Your task to perform on an android device: create a new album in the google photos Image 0: 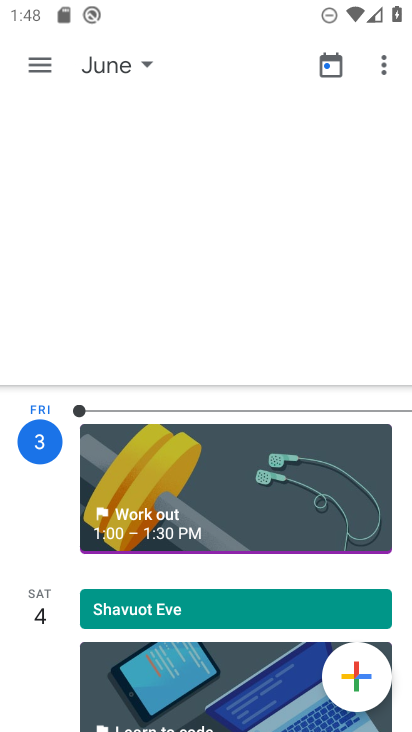
Step 0: press home button
Your task to perform on an android device: create a new album in the google photos Image 1: 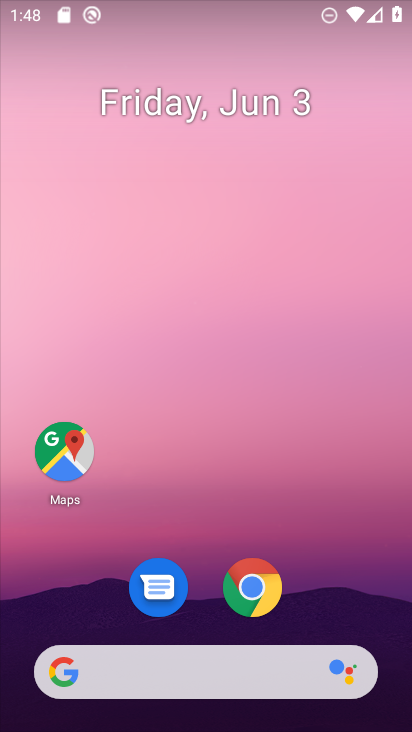
Step 1: drag from (329, 615) to (267, 26)
Your task to perform on an android device: create a new album in the google photos Image 2: 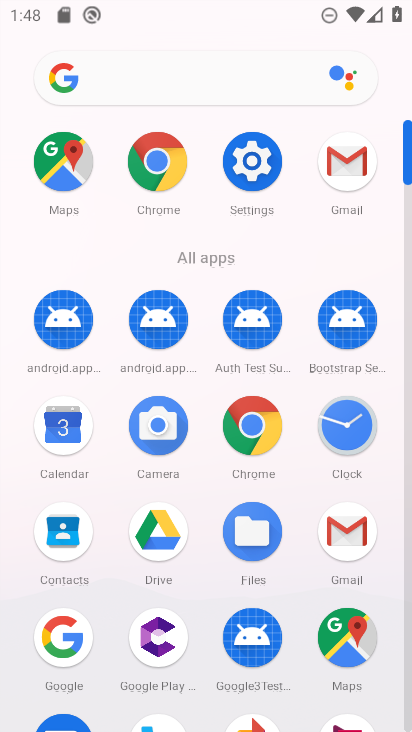
Step 2: drag from (199, 602) to (197, 178)
Your task to perform on an android device: create a new album in the google photos Image 3: 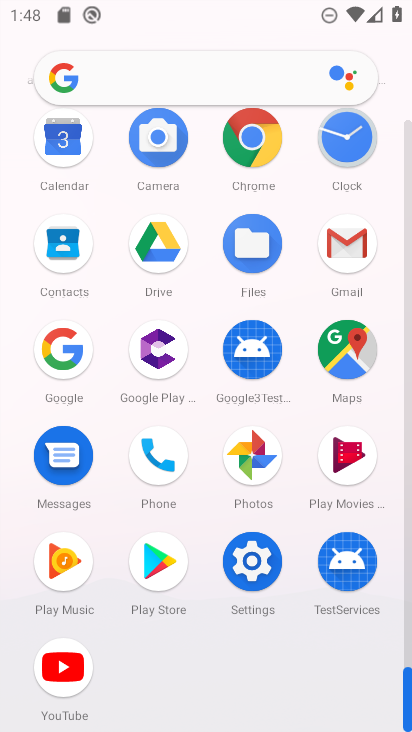
Step 3: click (258, 464)
Your task to perform on an android device: create a new album in the google photos Image 4: 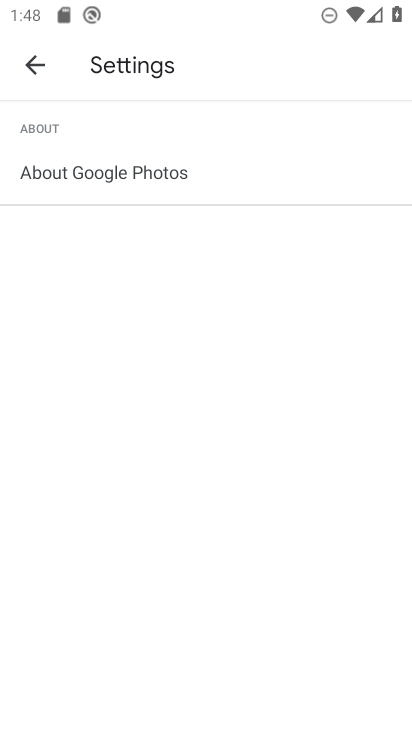
Step 4: click (36, 60)
Your task to perform on an android device: create a new album in the google photos Image 5: 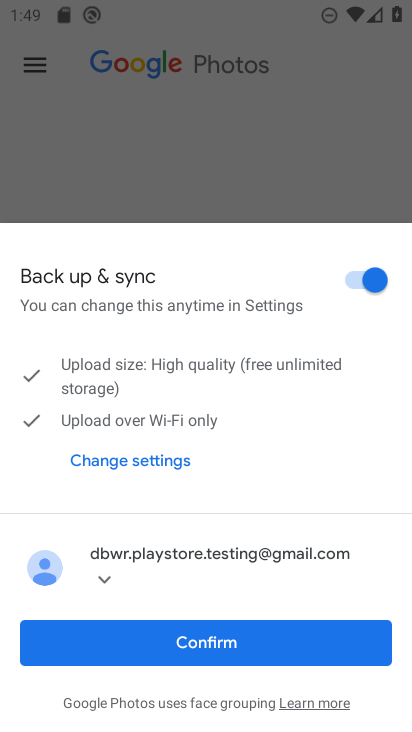
Step 5: click (239, 655)
Your task to perform on an android device: create a new album in the google photos Image 6: 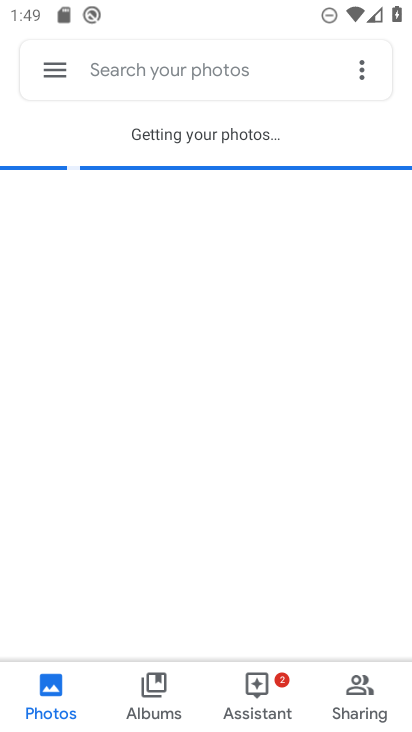
Step 6: click (151, 688)
Your task to perform on an android device: create a new album in the google photos Image 7: 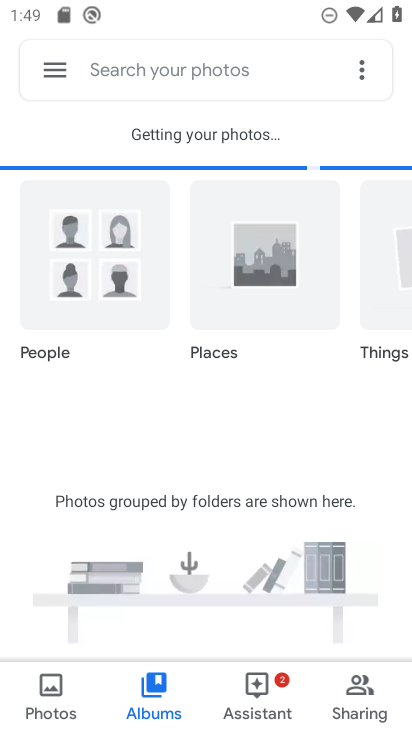
Step 7: click (360, 65)
Your task to perform on an android device: create a new album in the google photos Image 8: 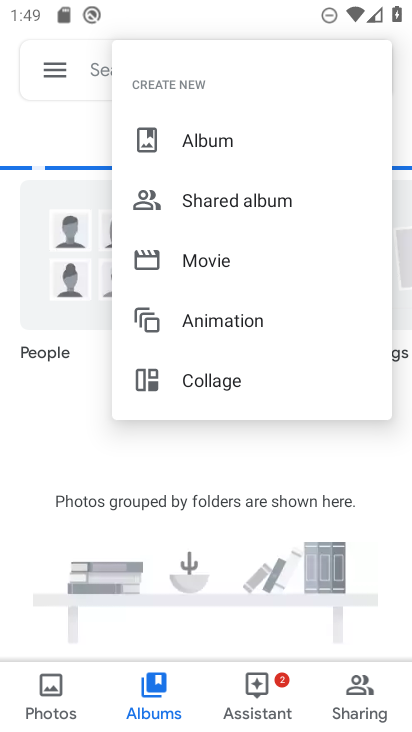
Step 8: click (221, 148)
Your task to perform on an android device: create a new album in the google photos Image 9: 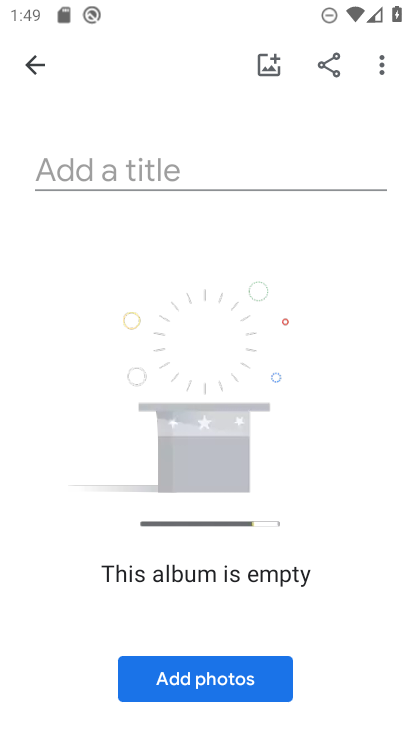
Step 9: click (73, 173)
Your task to perform on an android device: create a new album in the google photos Image 10: 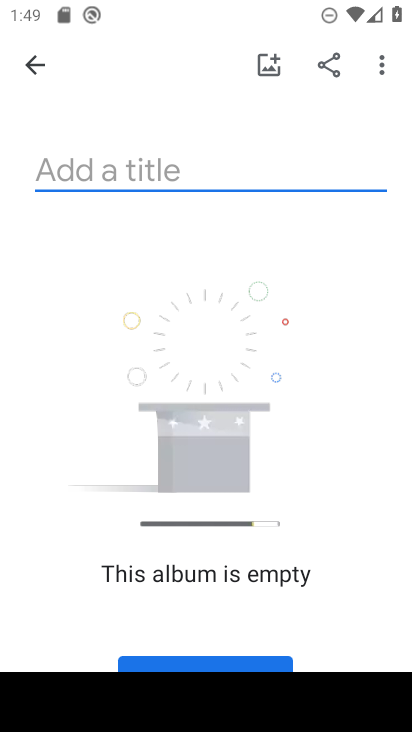
Step 10: type "qwertyuip"
Your task to perform on an android device: create a new album in the google photos Image 11: 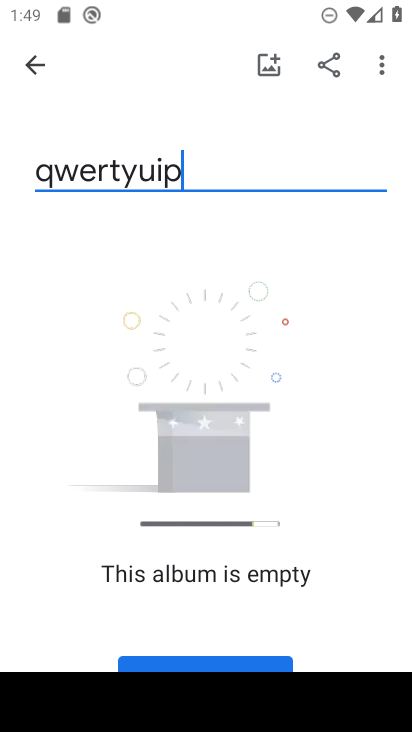
Step 11: click (280, 60)
Your task to perform on an android device: create a new album in the google photos Image 12: 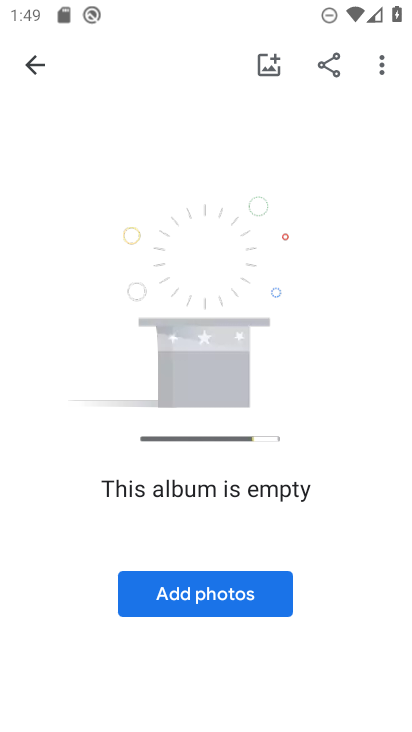
Step 12: click (182, 601)
Your task to perform on an android device: create a new album in the google photos Image 13: 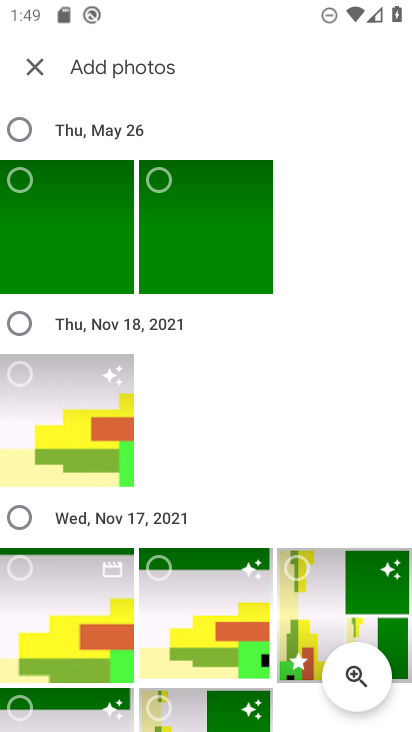
Step 13: click (22, 245)
Your task to perform on an android device: create a new album in the google photos Image 14: 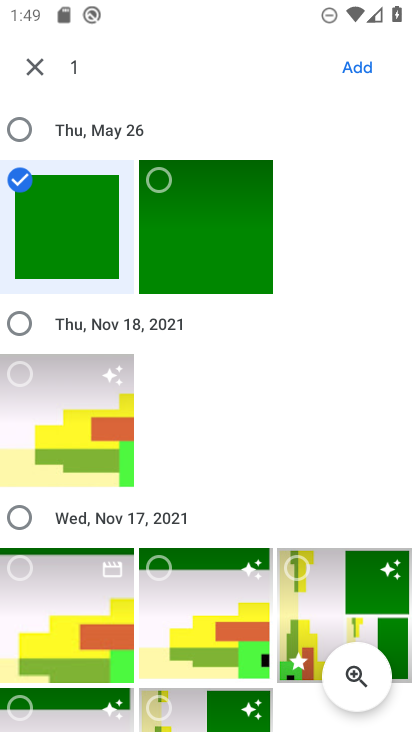
Step 14: click (353, 72)
Your task to perform on an android device: create a new album in the google photos Image 15: 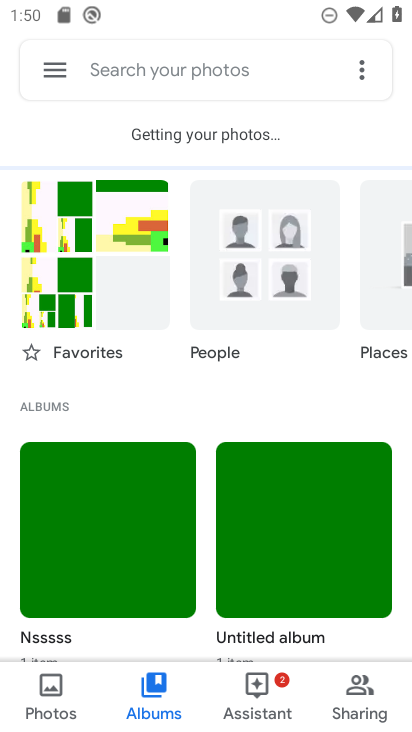
Step 15: task complete